Your task to perform on an android device: Show me the alarms in the clock app Image 0: 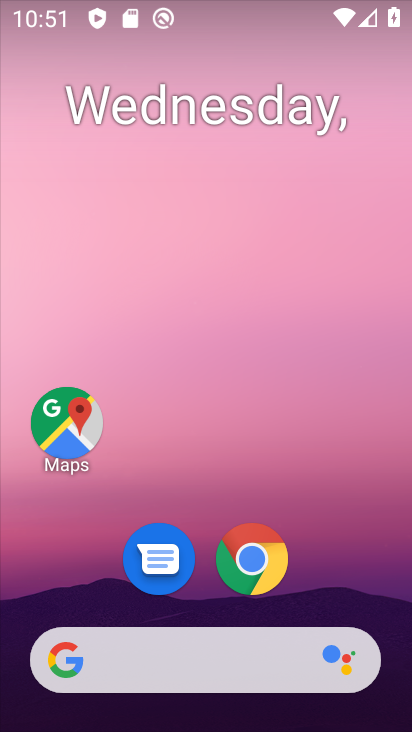
Step 0: drag from (313, 479) to (400, 123)
Your task to perform on an android device: Show me the alarms in the clock app Image 1: 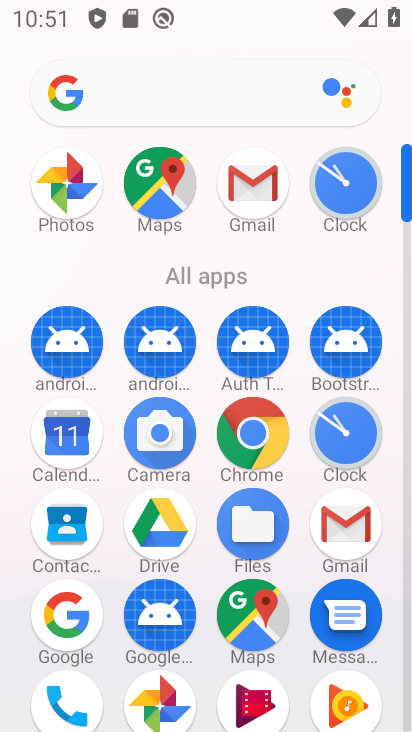
Step 1: click (361, 169)
Your task to perform on an android device: Show me the alarms in the clock app Image 2: 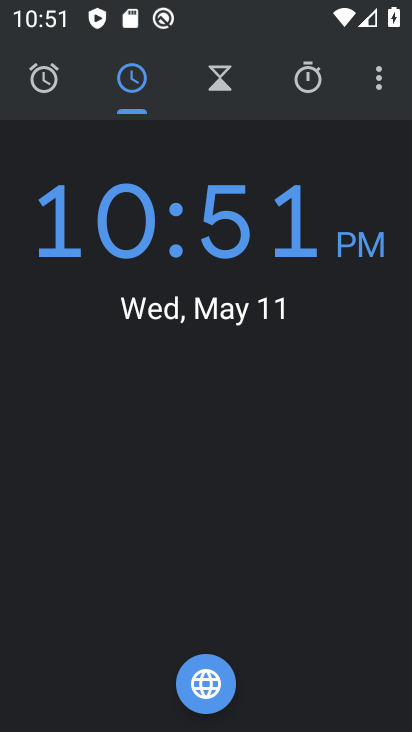
Step 2: click (35, 75)
Your task to perform on an android device: Show me the alarms in the clock app Image 3: 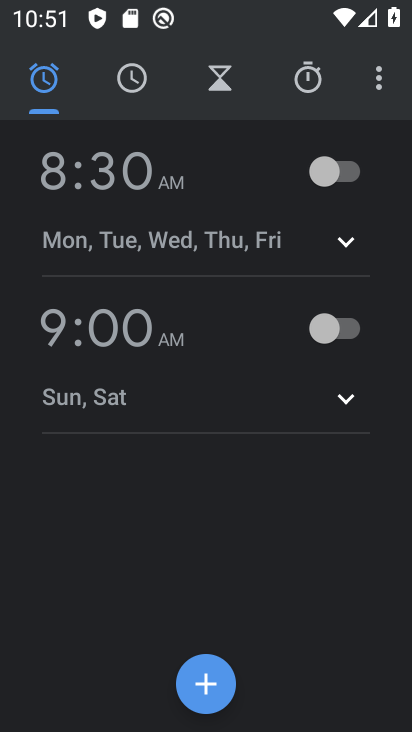
Step 3: task complete